Your task to perform on an android device: Open CNN.com Image 0: 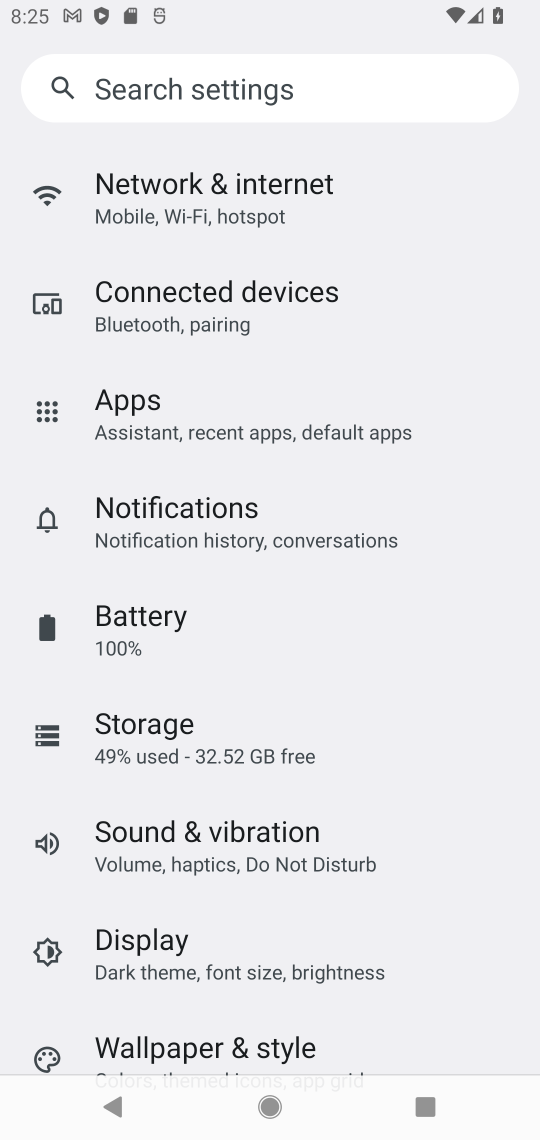
Step 0: press home button
Your task to perform on an android device: Open CNN.com Image 1: 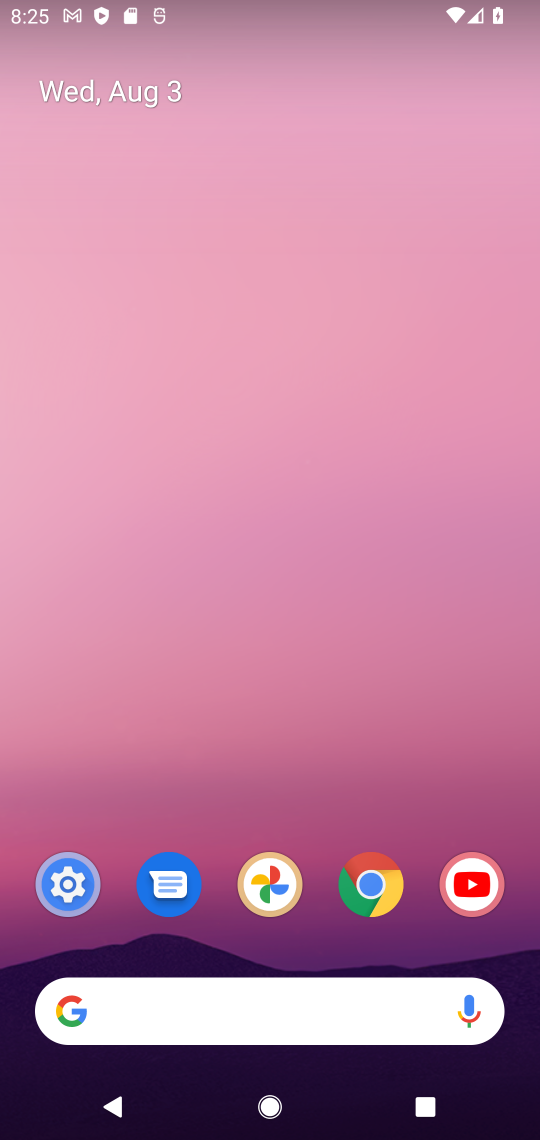
Step 1: click (356, 873)
Your task to perform on an android device: Open CNN.com Image 2: 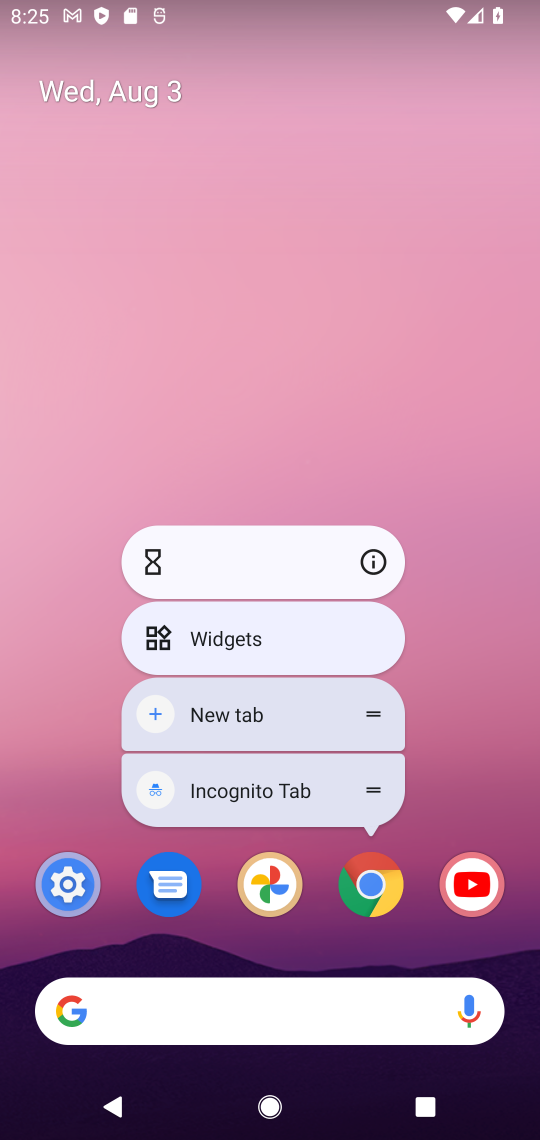
Step 2: click (127, 1016)
Your task to perform on an android device: Open CNN.com Image 3: 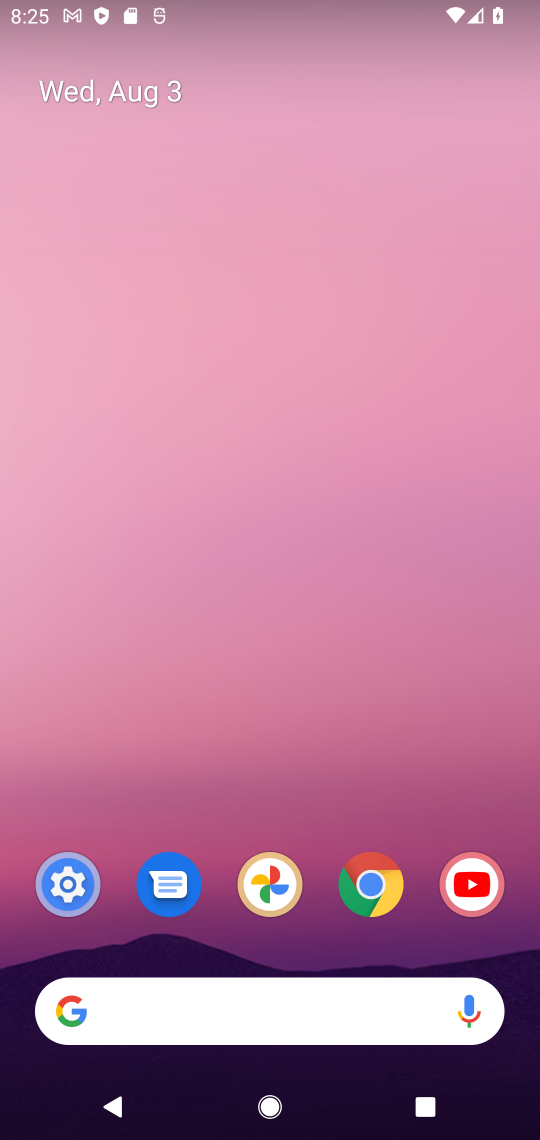
Step 3: click (160, 1001)
Your task to perform on an android device: Open CNN.com Image 4: 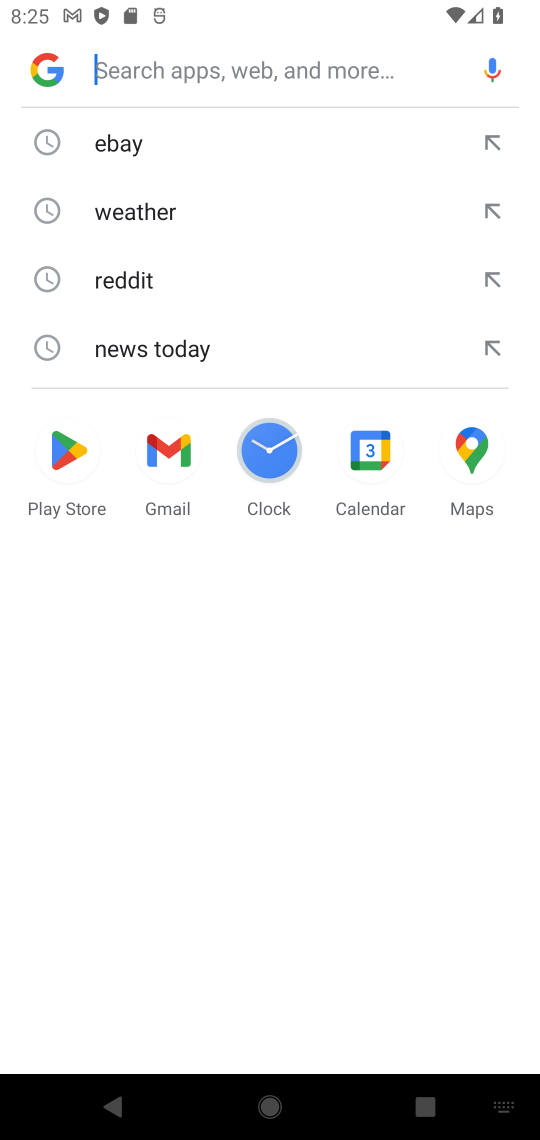
Step 4: type "CNN.com"
Your task to perform on an android device: Open CNN.com Image 5: 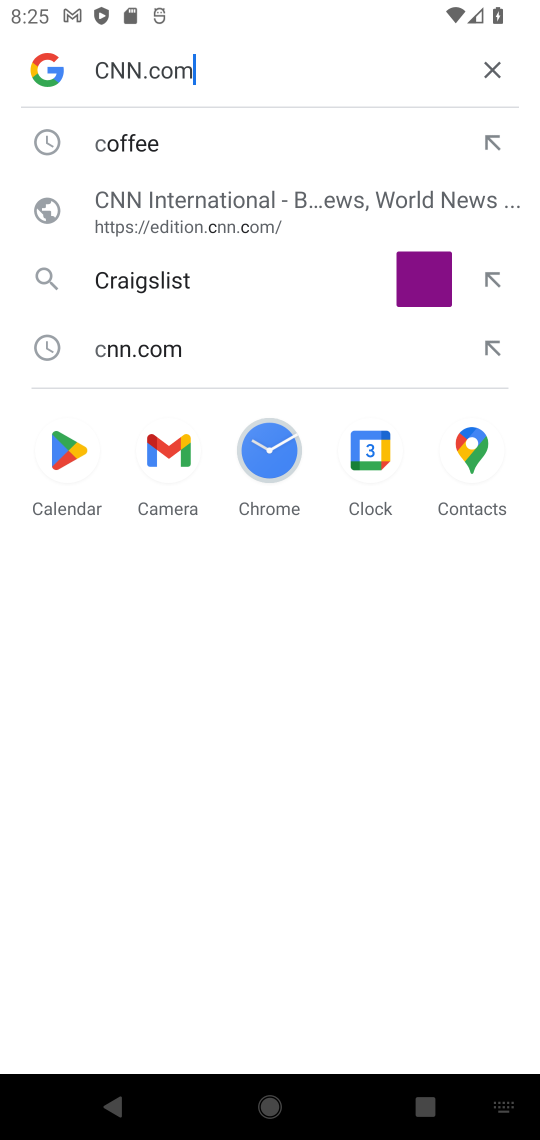
Step 5: type ""
Your task to perform on an android device: Open CNN.com Image 6: 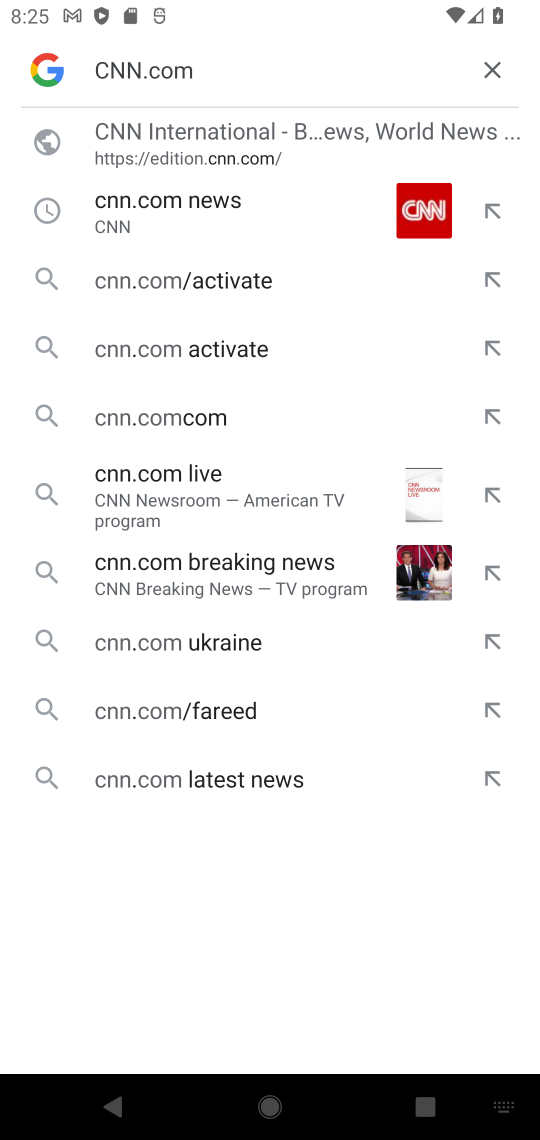
Step 6: click (107, 137)
Your task to perform on an android device: Open CNN.com Image 7: 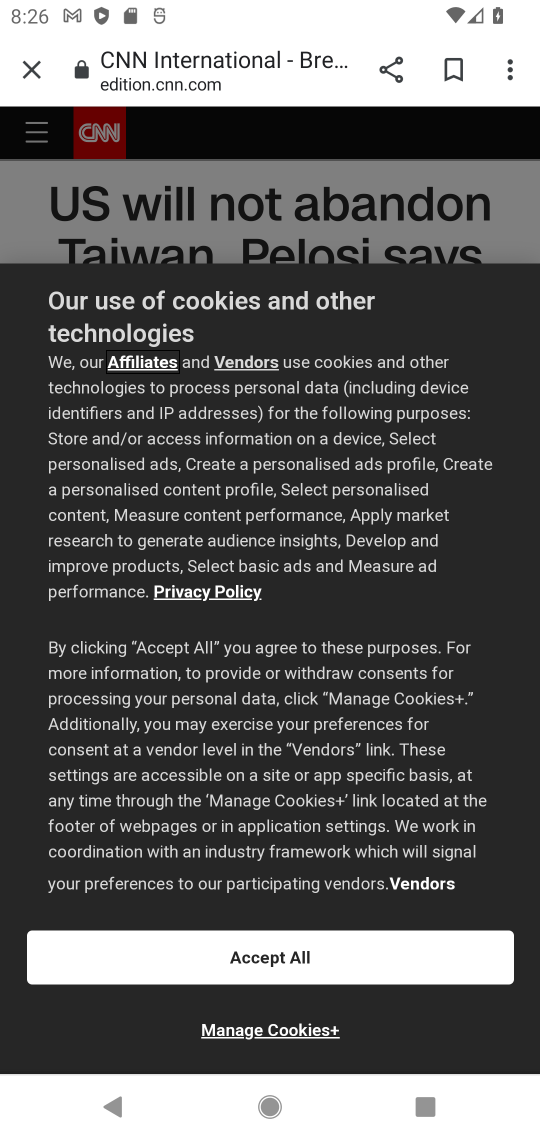
Step 7: task complete